Your task to perform on an android device: What is the news today? Image 0: 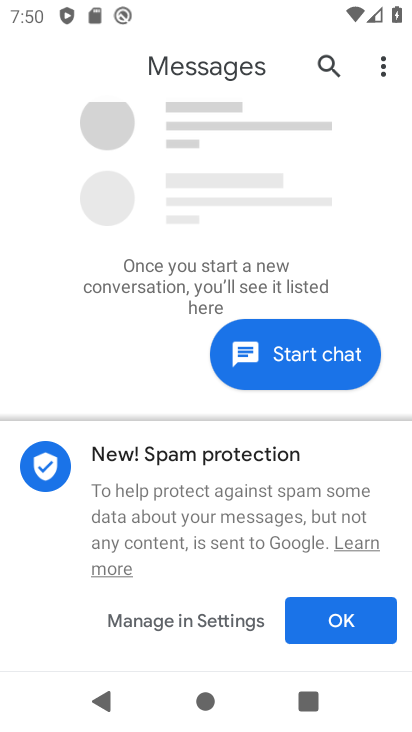
Step 0: press home button
Your task to perform on an android device: What is the news today? Image 1: 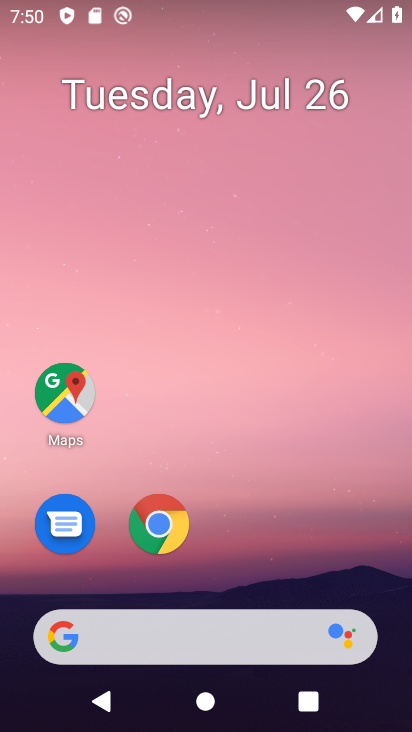
Step 1: click (216, 627)
Your task to perform on an android device: What is the news today? Image 2: 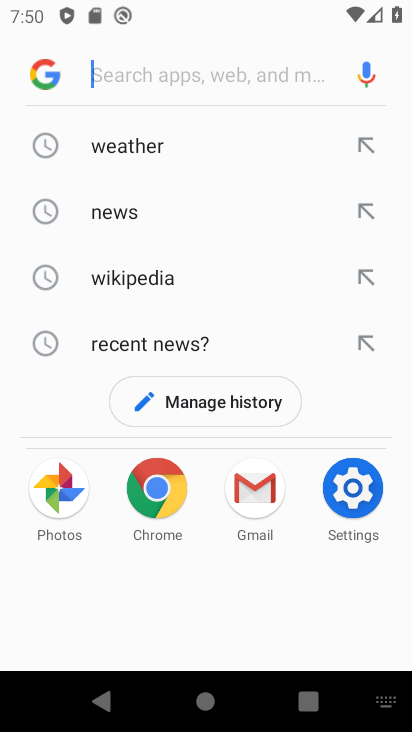
Step 2: click (117, 213)
Your task to perform on an android device: What is the news today? Image 3: 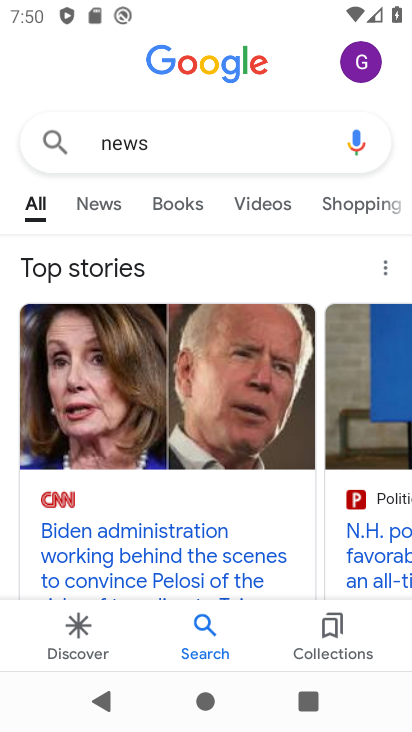
Step 3: task complete